Your task to perform on an android device: turn off smart reply in the gmail app Image 0: 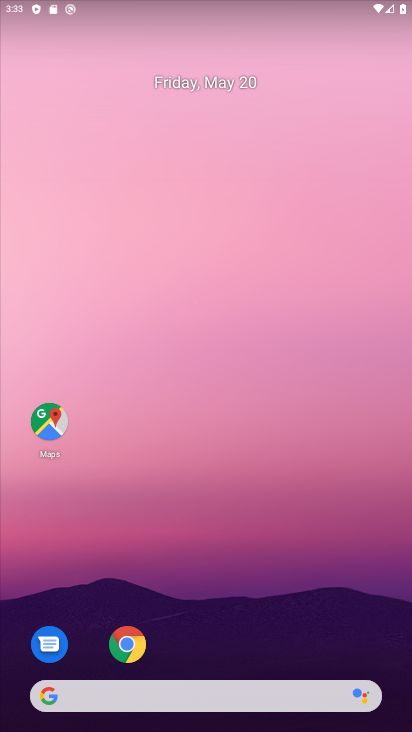
Step 0: drag from (222, 662) to (237, 146)
Your task to perform on an android device: turn off smart reply in the gmail app Image 1: 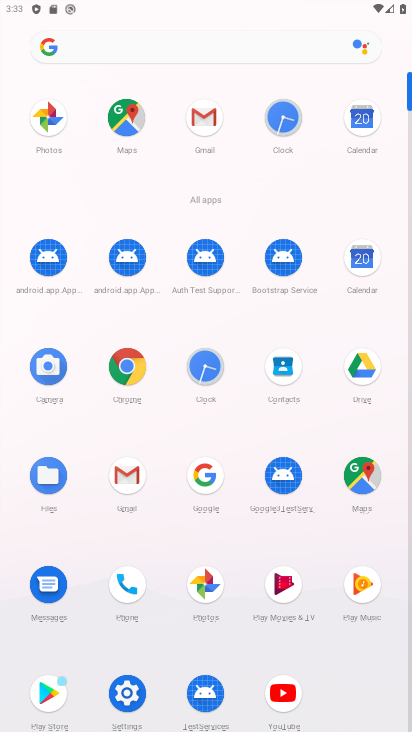
Step 1: click (133, 490)
Your task to perform on an android device: turn off smart reply in the gmail app Image 2: 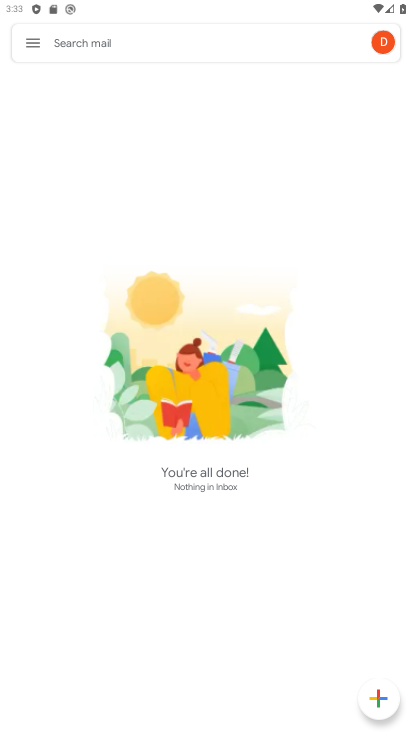
Step 2: click (40, 37)
Your task to perform on an android device: turn off smart reply in the gmail app Image 3: 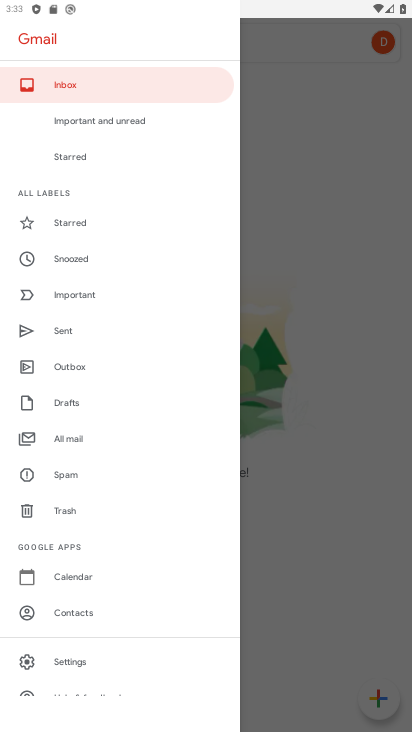
Step 3: click (98, 661)
Your task to perform on an android device: turn off smart reply in the gmail app Image 4: 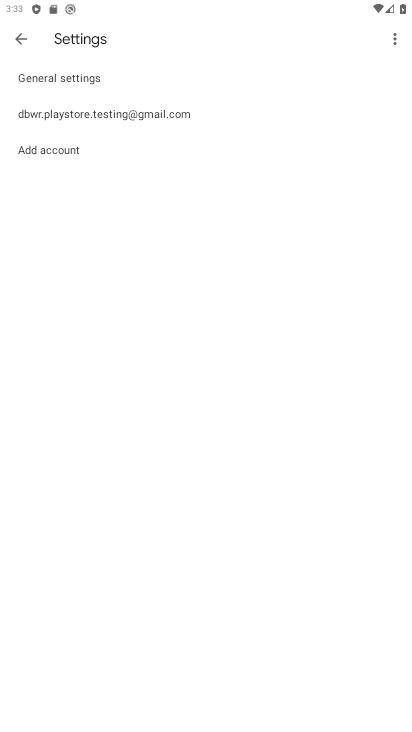
Step 4: click (121, 108)
Your task to perform on an android device: turn off smart reply in the gmail app Image 5: 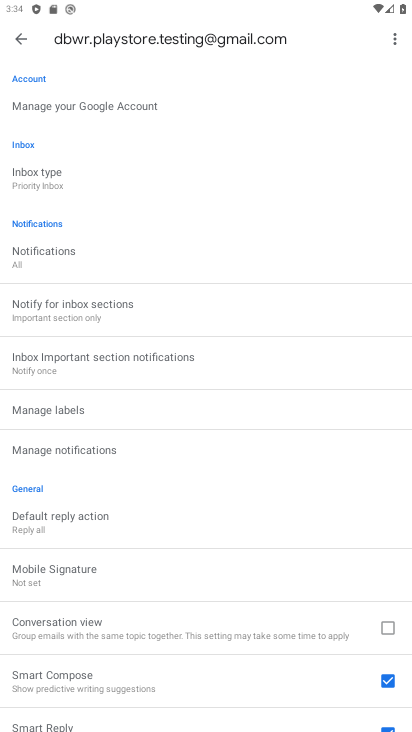
Step 5: drag from (133, 683) to (171, 267)
Your task to perform on an android device: turn off smart reply in the gmail app Image 6: 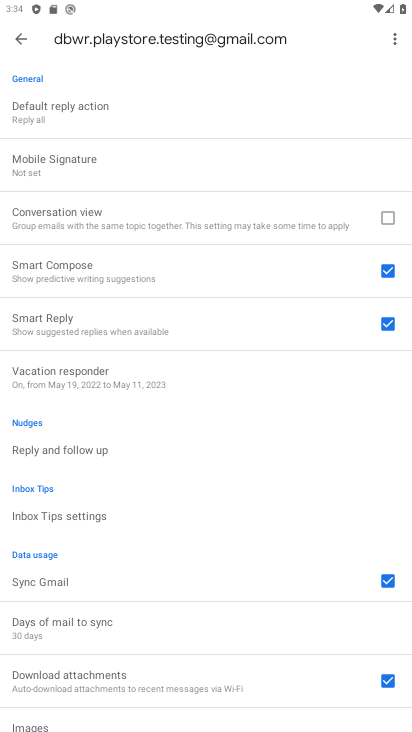
Step 6: click (390, 325)
Your task to perform on an android device: turn off smart reply in the gmail app Image 7: 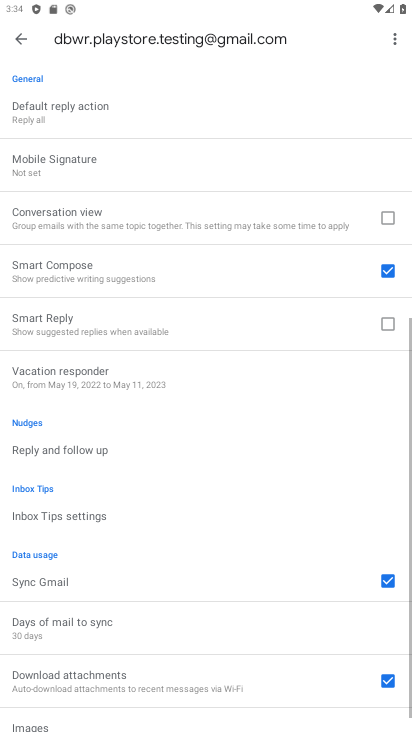
Step 7: task complete